Your task to perform on an android device: turn on priority inbox in the gmail app Image 0: 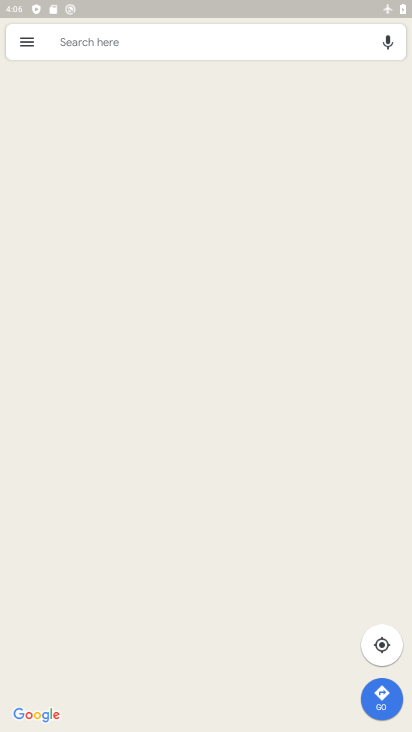
Step 0: drag from (230, 636) to (291, 204)
Your task to perform on an android device: turn on priority inbox in the gmail app Image 1: 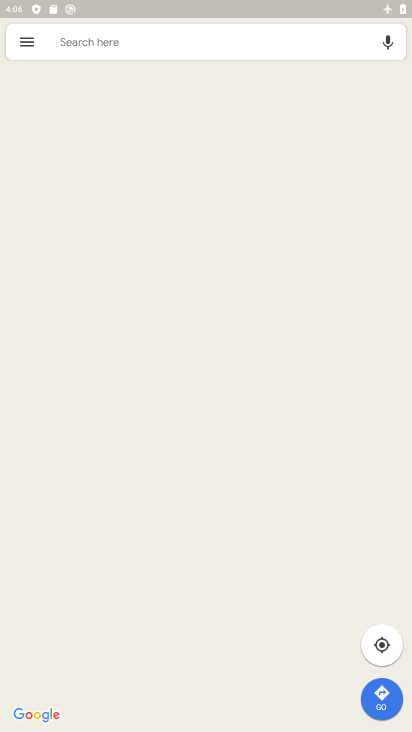
Step 1: press back button
Your task to perform on an android device: turn on priority inbox in the gmail app Image 2: 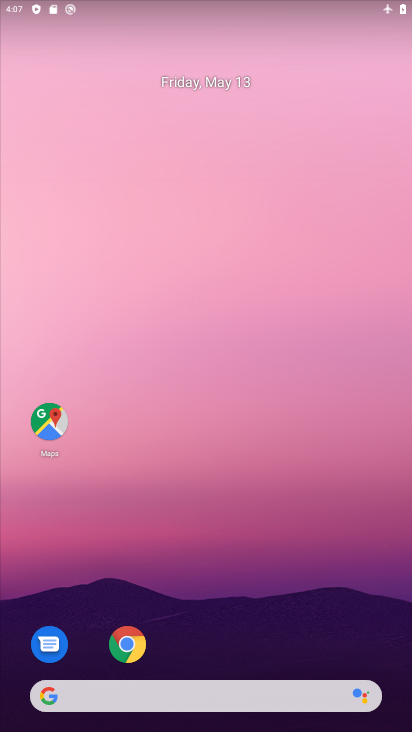
Step 2: drag from (277, 618) to (344, 184)
Your task to perform on an android device: turn on priority inbox in the gmail app Image 3: 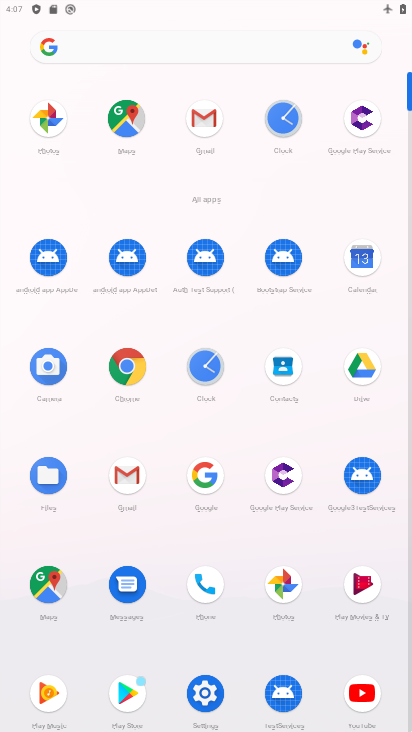
Step 3: click (134, 488)
Your task to perform on an android device: turn on priority inbox in the gmail app Image 4: 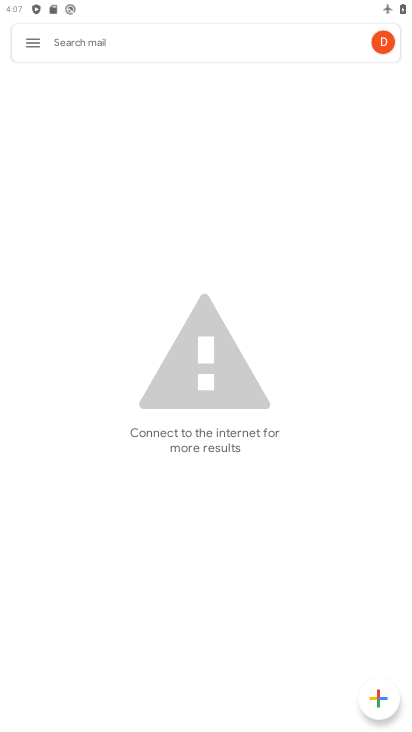
Step 4: click (34, 38)
Your task to perform on an android device: turn on priority inbox in the gmail app Image 5: 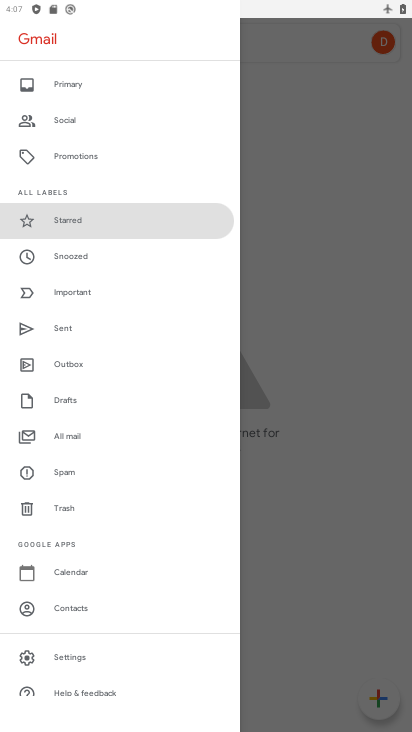
Step 5: click (72, 655)
Your task to perform on an android device: turn on priority inbox in the gmail app Image 6: 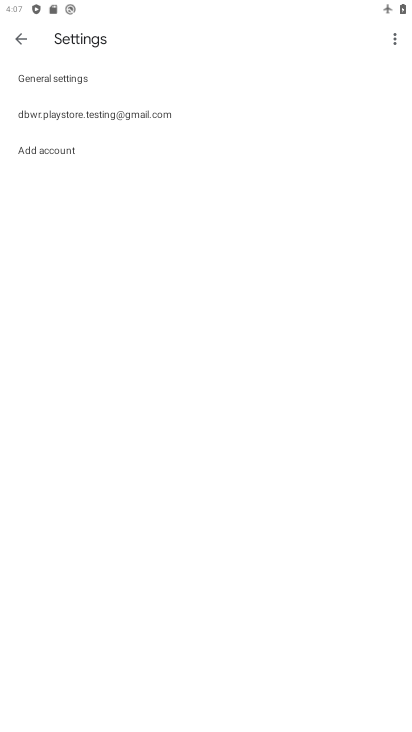
Step 6: click (111, 106)
Your task to perform on an android device: turn on priority inbox in the gmail app Image 7: 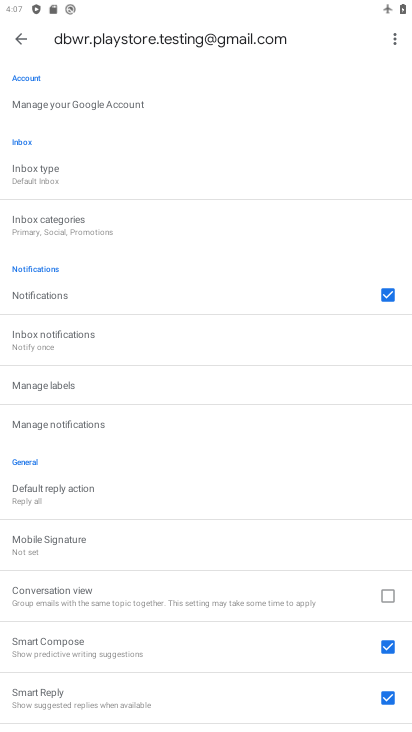
Step 7: click (20, 36)
Your task to perform on an android device: turn on priority inbox in the gmail app Image 8: 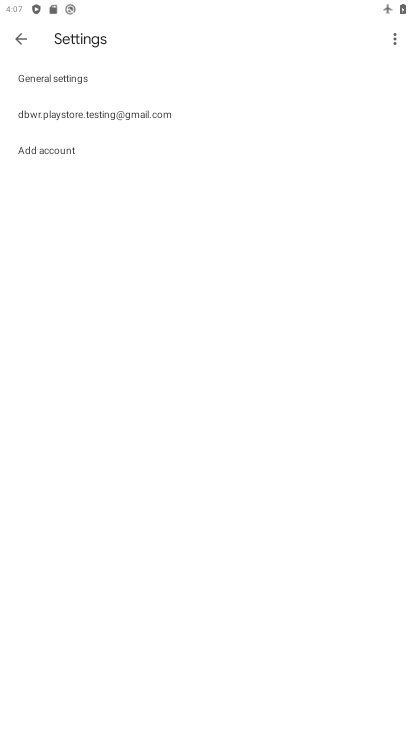
Step 8: click (61, 122)
Your task to perform on an android device: turn on priority inbox in the gmail app Image 9: 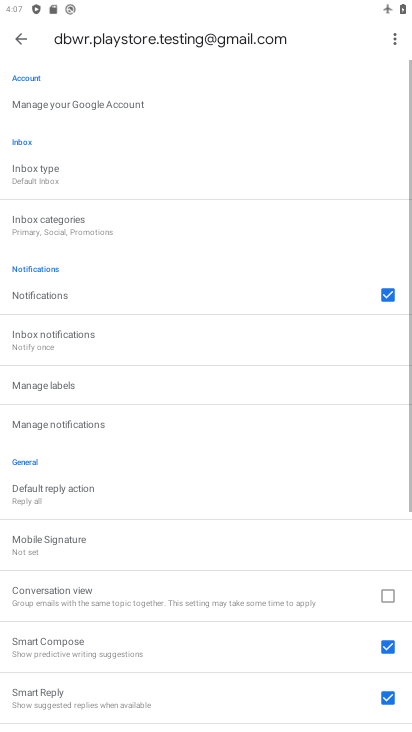
Step 9: click (36, 183)
Your task to perform on an android device: turn on priority inbox in the gmail app Image 10: 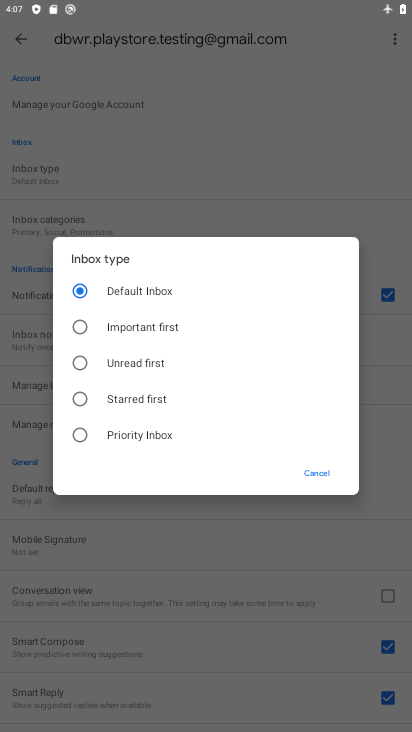
Step 10: click (83, 436)
Your task to perform on an android device: turn on priority inbox in the gmail app Image 11: 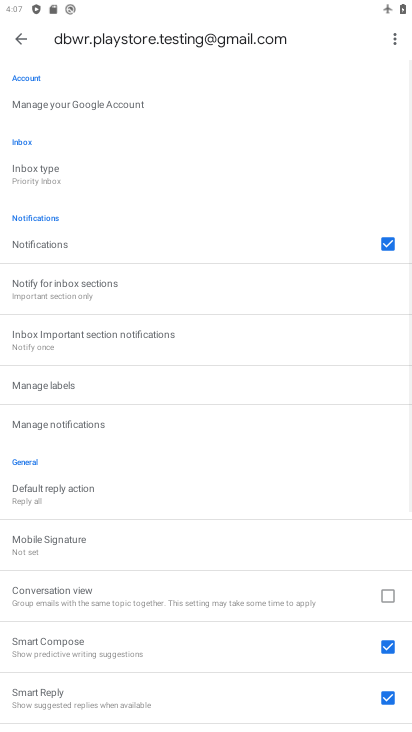
Step 11: task complete